Your task to perform on an android device: open app "DoorDash - Dasher" (install if not already installed) Image 0: 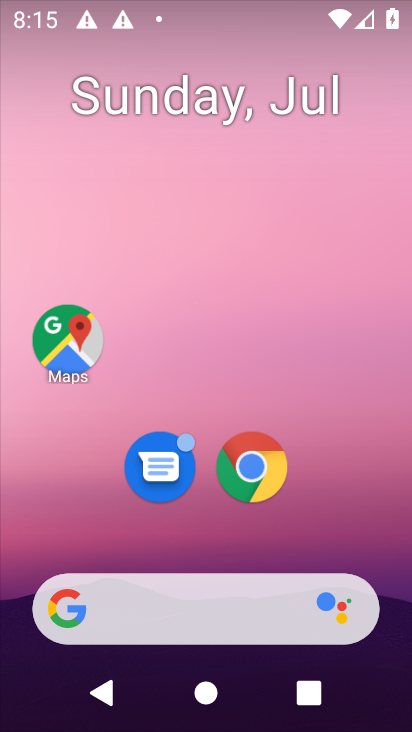
Step 0: drag from (209, 352) to (232, 48)
Your task to perform on an android device: open app "DoorDash - Dasher" (install if not already installed) Image 1: 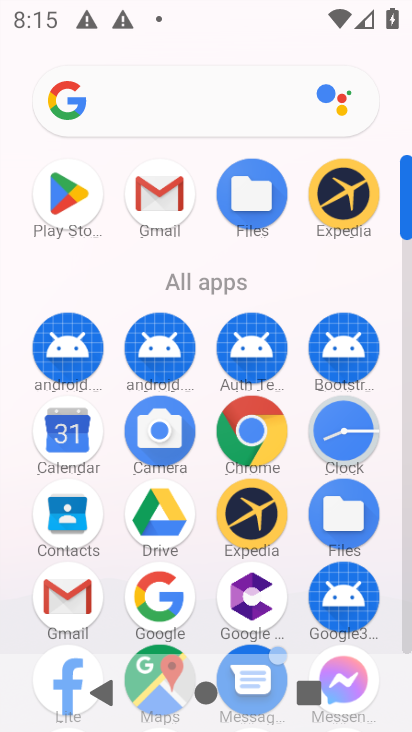
Step 1: drag from (200, 632) to (258, 205)
Your task to perform on an android device: open app "DoorDash - Dasher" (install if not already installed) Image 2: 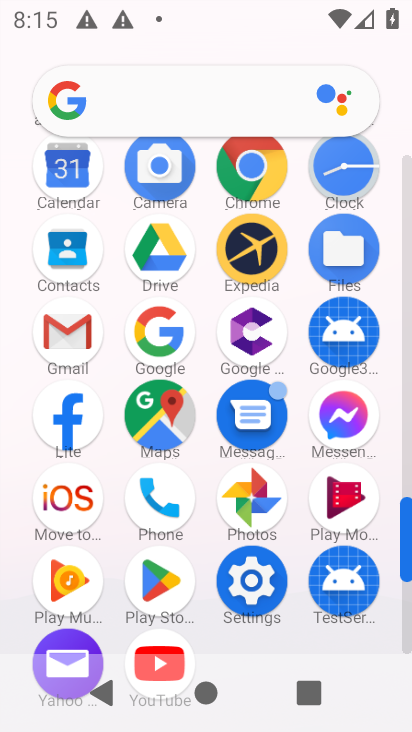
Step 2: click (173, 598)
Your task to perform on an android device: open app "DoorDash - Dasher" (install if not already installed) Image 3: 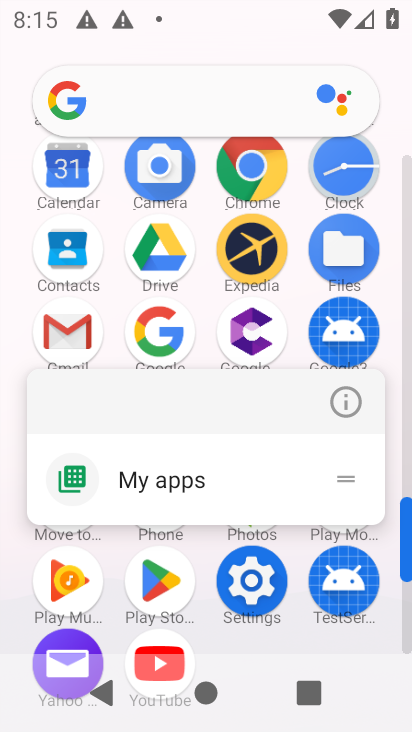
Step 3: click (353, 400)
Your task to perform on an android device: open app "DoorDash - Dasher" (install if not already installed) Image 4: 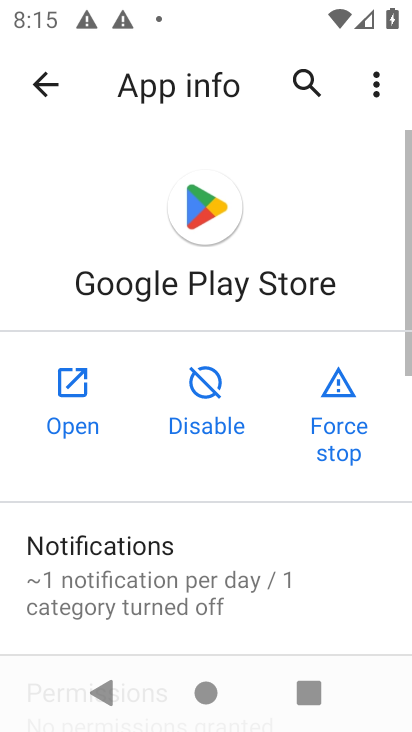
Step 4: click (68, 392)
Your task to perform on an android device: open app "DoorDash - Dasher" (install if not already installed) Image 5: 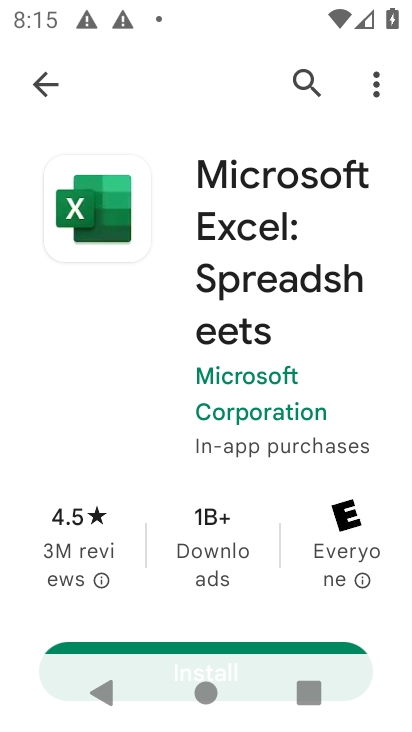
Step 5: drag from (268, 466) to (314, 257)
Your task to perform on an android device: open app "DoorDash - Dasher" (install if not already installed) Image 6: 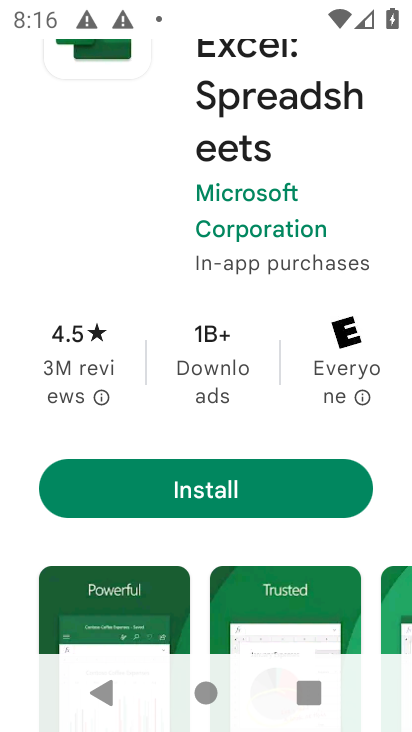
Step 6: drag from (243, 418) to (285, 267)
Your task to perform on an android device: open app "DoorDash - Dasher" (install if not already installed) Image 7: 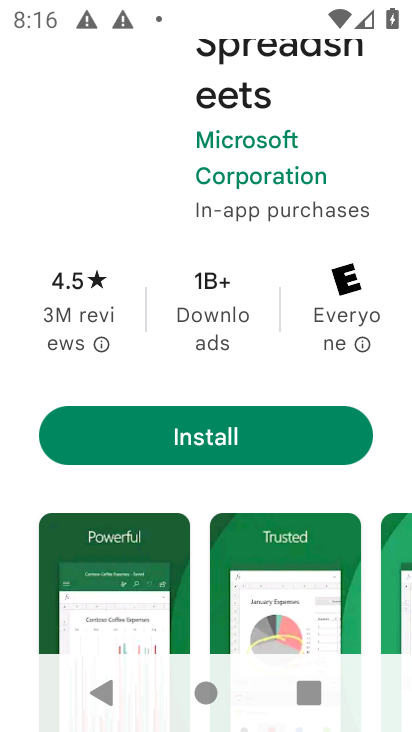
Step 7: drag from (257, 351) to (350, 147)
Your task to perform on an android device: open app "DoorDash - Dasher" (install if not already installed) Image 8: 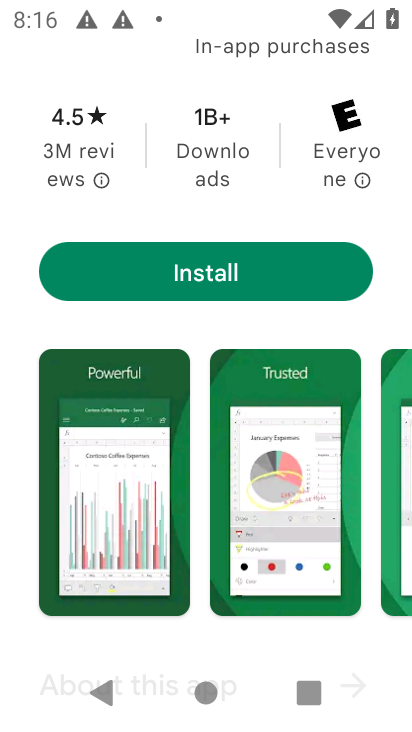
Step 8: drag from (324, 137) to (395, 460)
Your task to perform on an android device: open app "DoorDash - Dasher" (install if not already installed) Image 9: 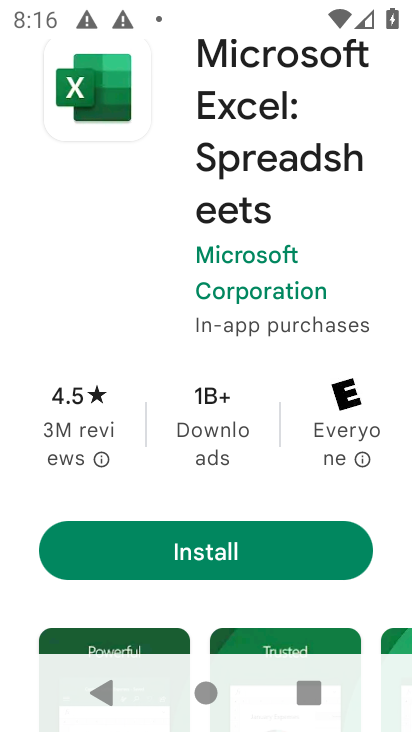
Step 9: drag from (353, 133) to (341, 690)
Your task to perform on an android device: open app "DoorDash - Dasher" (install if not already installed) Image 10: 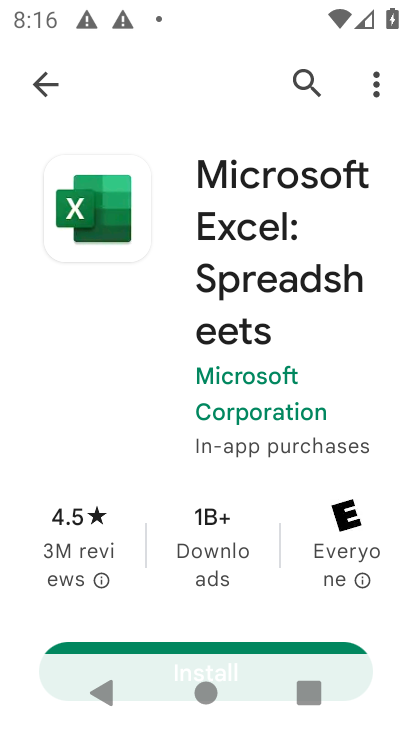
Step 10: drag from (194, 630) to (307, 229)
Your task to perform on an android device: open app "DoorDash - Dasher" (install if not already installed) Image 11: 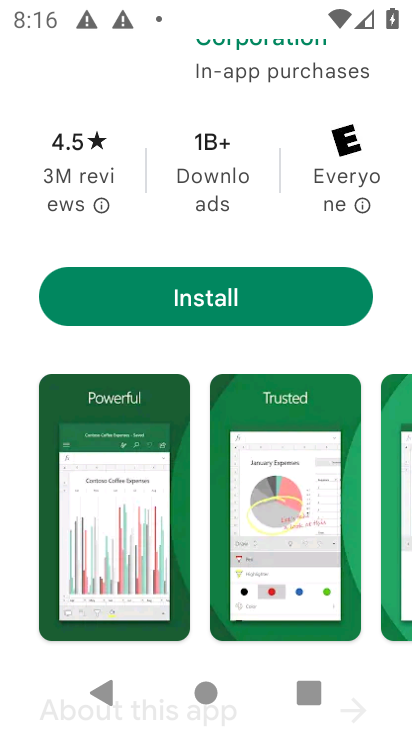
Step 11: drag from (203, 582) to (248, 325)
Your task to perform on an android device: open app "DoorDash - Dasher" (install if not already installed) Image 12: 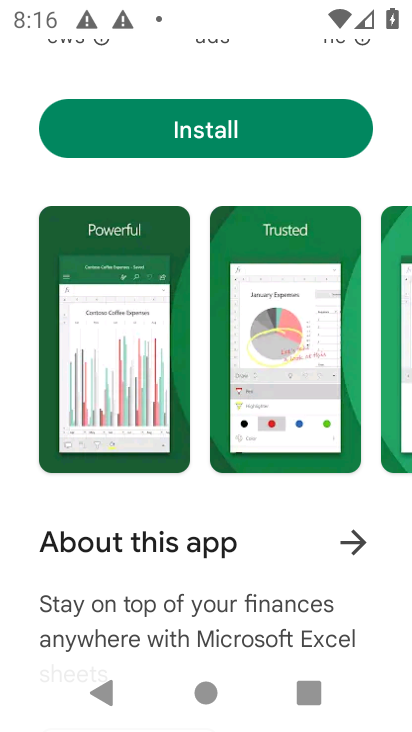
Step 12: drag from (207, 187) to (322, 727)
Your task to perform on an android device: open app "DoorDash - Dasher" (install if not already installed) Image 13: 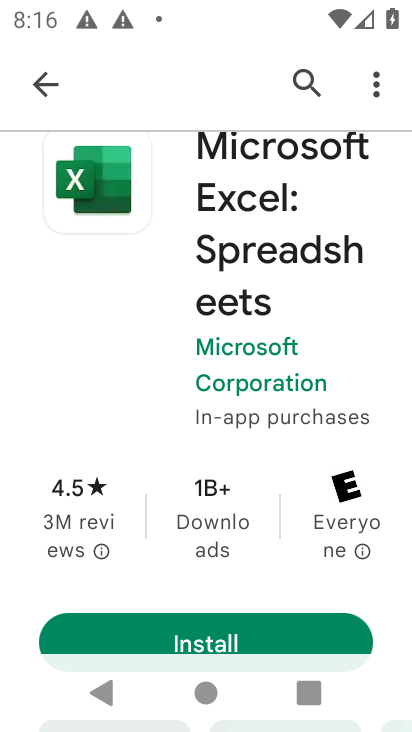
Step 13: drag from (279, 221) to (234, 367)
Your task to perform on an android device: open app "DoorDash - Dasher" (install if not already installed) Image 14: 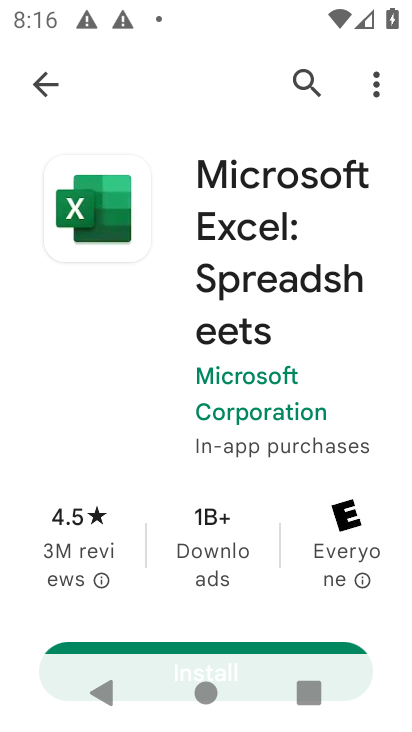
Step 14: drag from (225, 506) to (251, 287)
Your task to perform on an android device: open app "DoorDash - Dasher" (install if not already installed) Image 15: 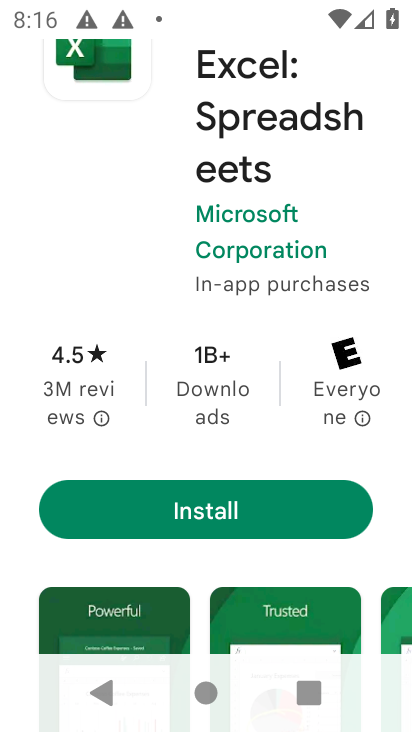
Step 15: drag from (280, 229) to (254, 638)
Your task to perform on an android device: open app "DoorDash - Dasher" (install if not already installed) Image 16: 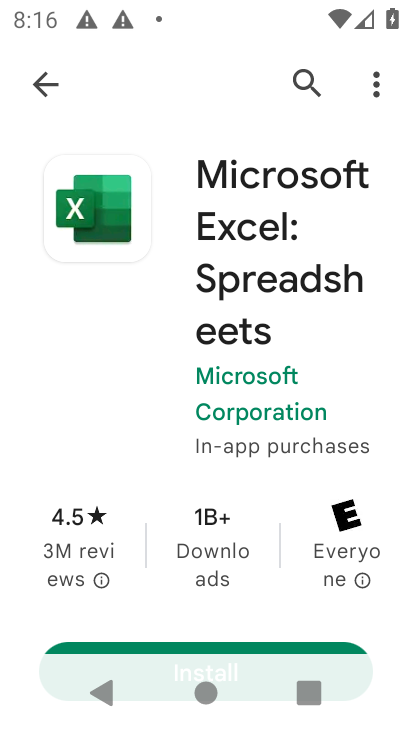
Step 16: click (311, 87)
Your task to perform on an android device: open app "DoorDash - Dasher" (install if not already installed) Image 17: 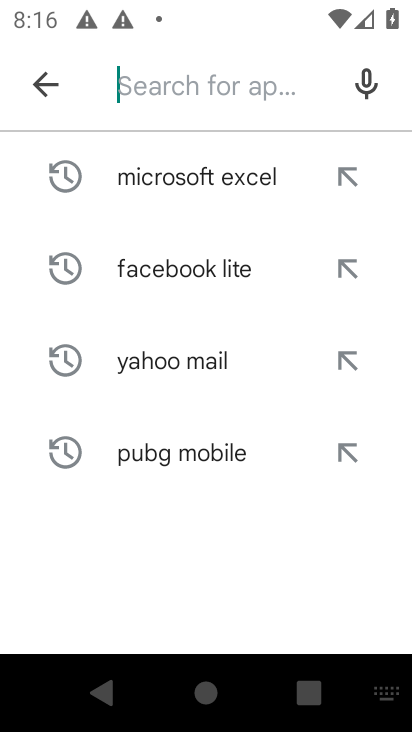
Step 17: type "DoorDash - Dasher"
Your task to perform on an android device: open app "DoorDash - Dasher" (install if not already installed) Image 18: 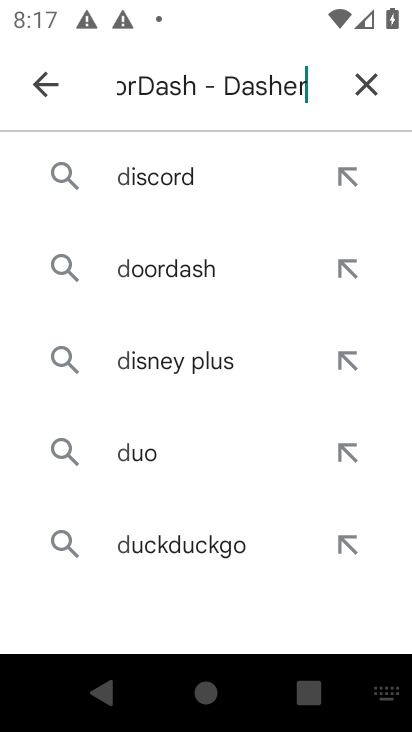
Step 18: type ""
Your task to perform on an android device: open app "DoorDash - Dasher" (install if not already installed) Image 19: 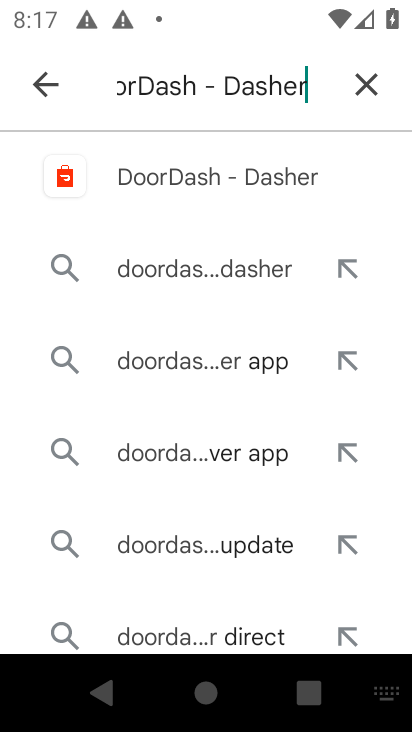
Step 19: click (141, 182)
Your task to perform on an android device: open app "DoorDash - Dasher" (install if not already installed) Image 20: 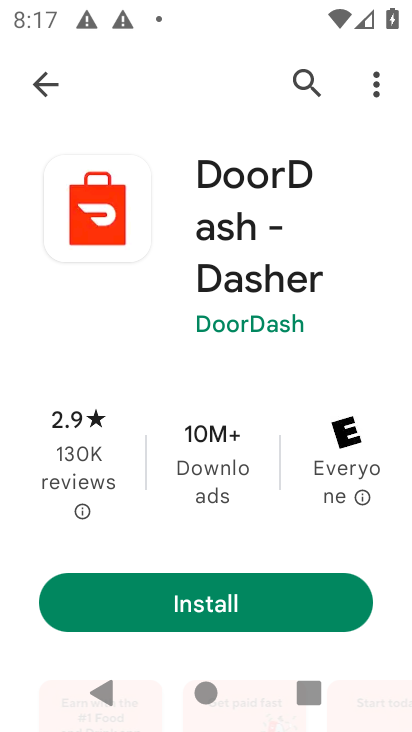
Step 20: click (191, 599)
Your task to perform on an android device: open app "DoorDash - Dasher" (install if not already installed) Image 21: 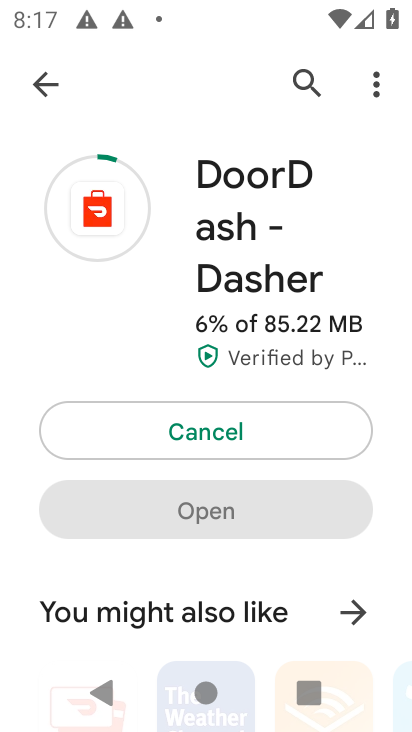
Step 21: drag from (135, 563) to (236, 720)
Your task to perform on an android device: open app "DoorDash - Dasher" (install if not already installed) Image 22: 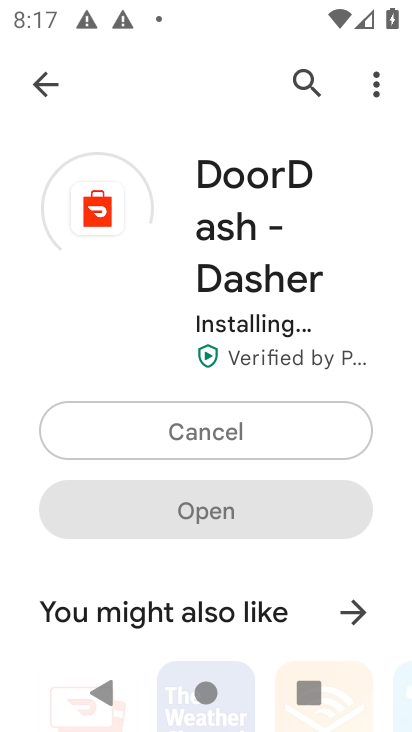
Step 22: drag from (223, 233) to (370, 55)
Your task to perform on an android device: open app "DoorDash - Dasher" (install if not already installed) Image 23: 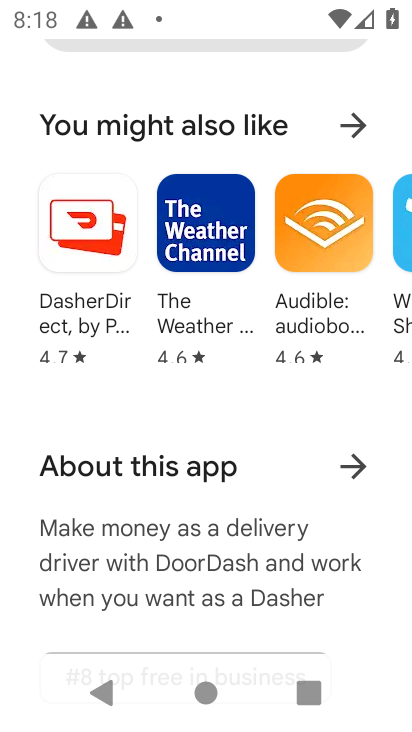
Step 23: drag from (206, 121) to (246, 497)
Your task to perform on an android device: open app "DoorDash - Dasher" (install if not already installed) Image 24: 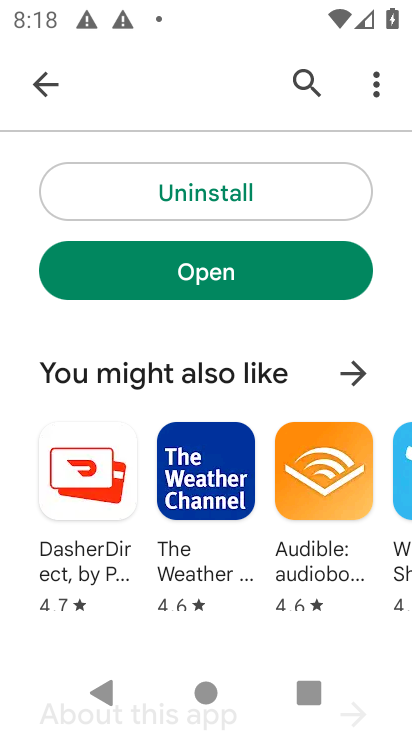
Step 24: click (205, 154)
Your task to perform on an android device: open app "DoorDash - Dasher" (install if not already installed) Image 25: 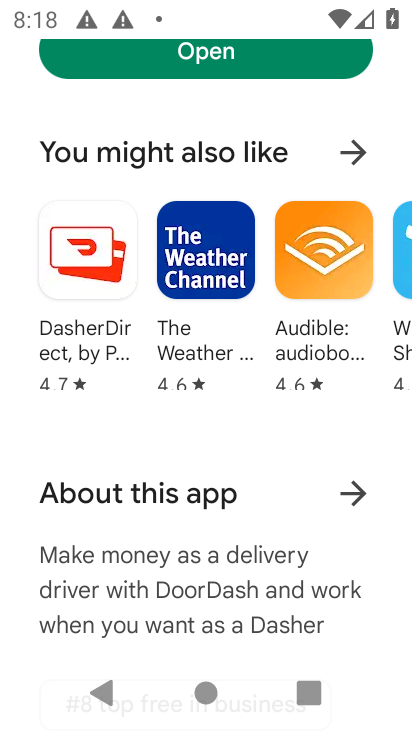
Step 25: drag from (48, 106) to (140, 719)
Your task to perform on an android device: open app "DoorDash - Dasher" (install if not already installed) Image 26: 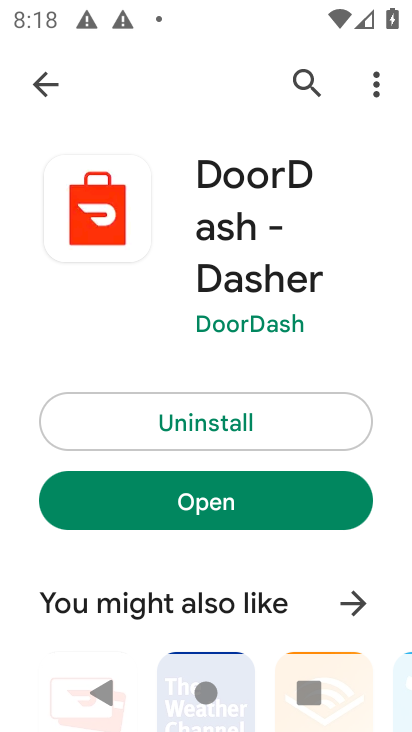
Step 26: drag from (234, 231) to (302, 527)
Your task to perform on an android device: open app "DoorDash - Dasher" (install if not already installed) Image 27: 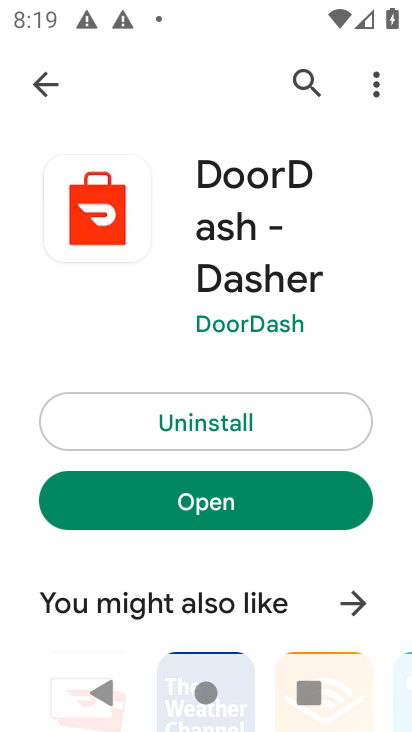
Step 27: click (294, 89)
Your task to perform on an android device: open app "DoorDash - Dasher" (install if not already installed) Image 28: 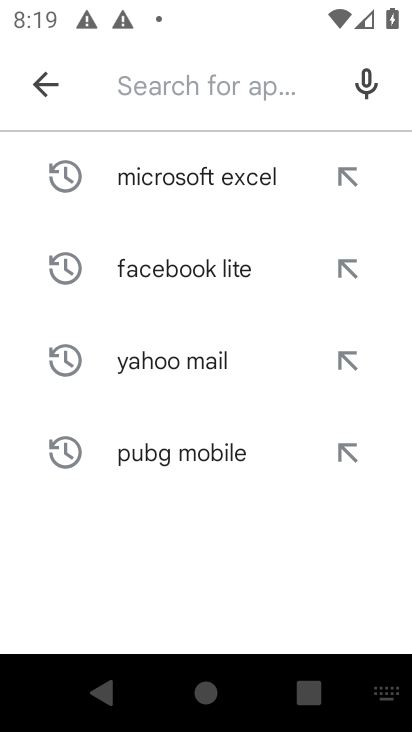
Step 28: click (182, 78)
Your task to perform on an android device: open app "DoorDash - Dasher" (install if not already installed) Image 29: 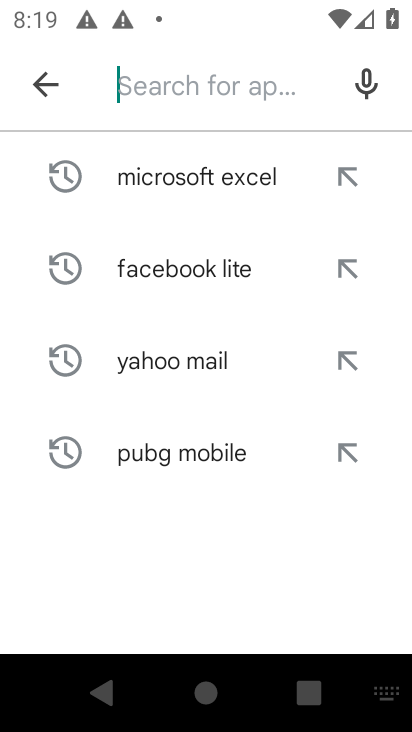
Step 29: type "DoorDash - Dasher"
Your task to perform on an android device: open app "DoorDash - Dasher" (install if not already installed) Image 30: 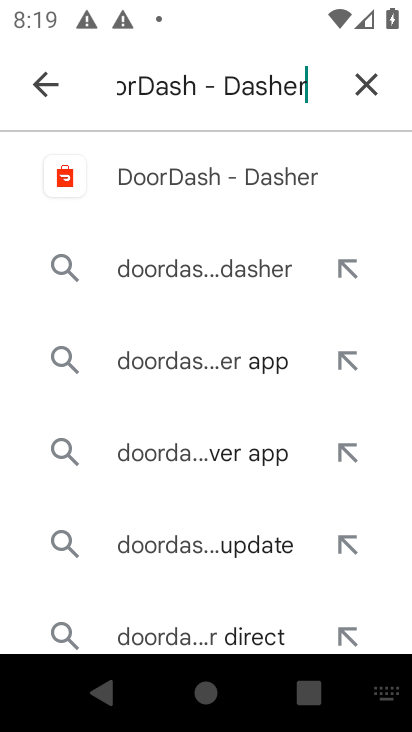
Step 30: type ""
Your task to perform on an android device: open app "DoorDash - Dasher" (install if not already installed) Image 31: 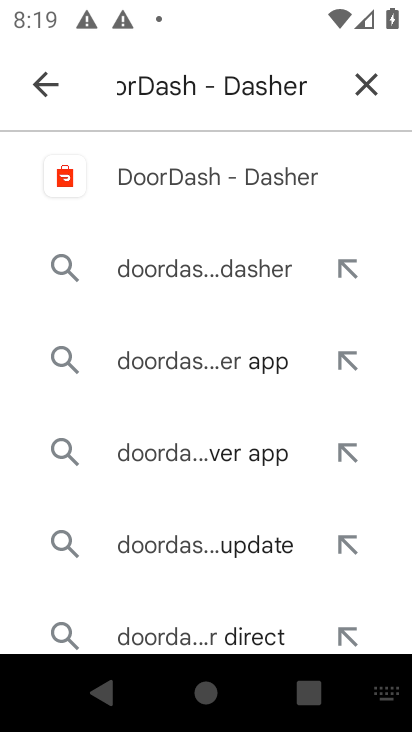
Step 31: click (219, 170)
Your task to perform on an android device: open app "DoorDash - Dasher" (install if not already installed) Image 32: 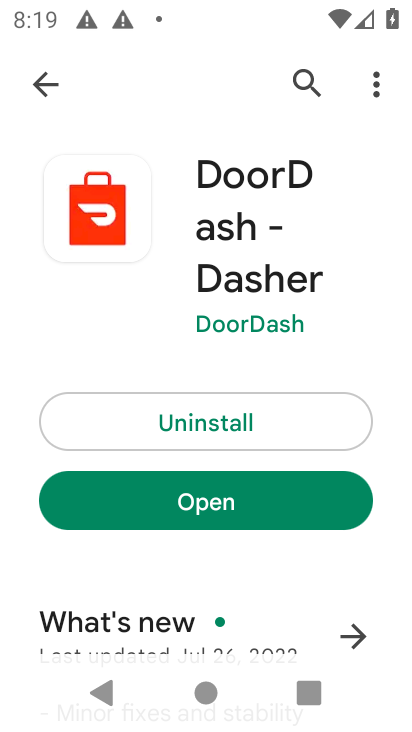
Step 32: click (165, 492)
Your task to perform on an android device: open app "DoorDash - Dasher" (install if not already installed) Image 33: 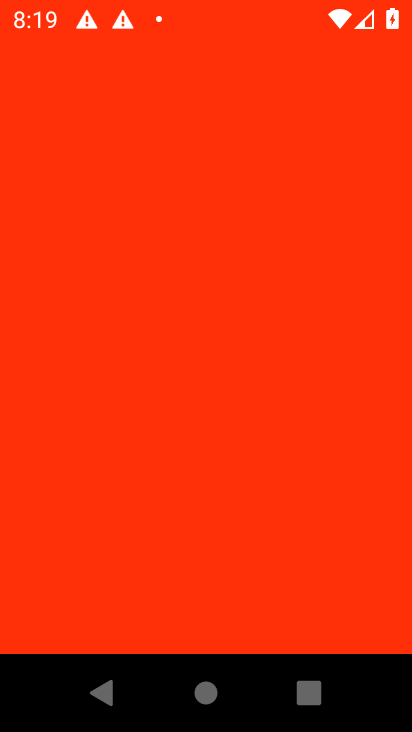
Step 33: task complete